Your task to perform on an android device: toggle improve location accuracy Image 0: 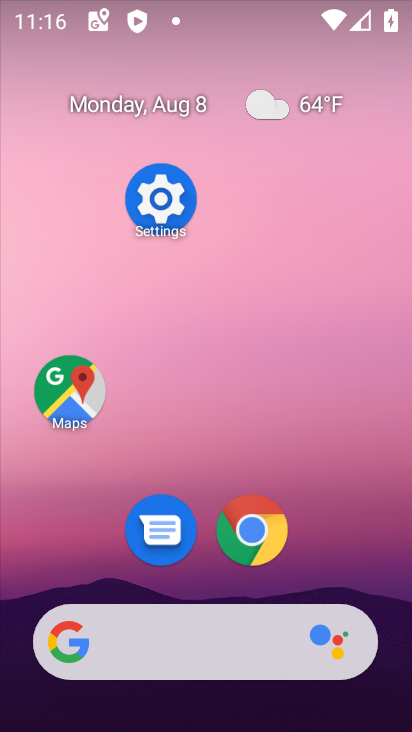
Step 0: drag from (231, 585) to (148, 244)
Your task to perform on an android device: toggle improve location accuracy Image 1: 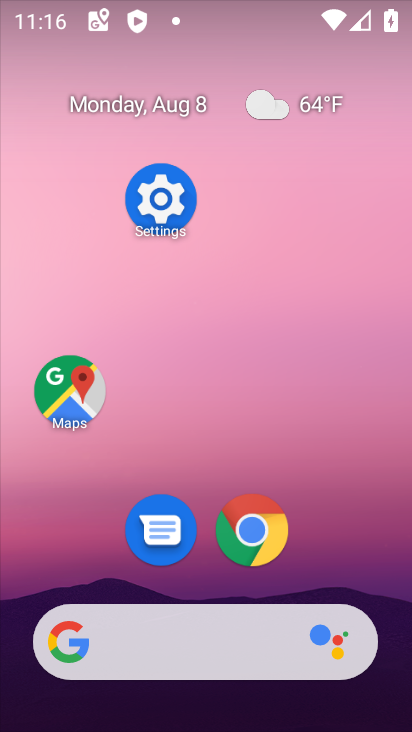
Step 1: drag from (181, 677) to (223, 298)
Your task to perform on an android device: toggle improve location accuracy Image 2: 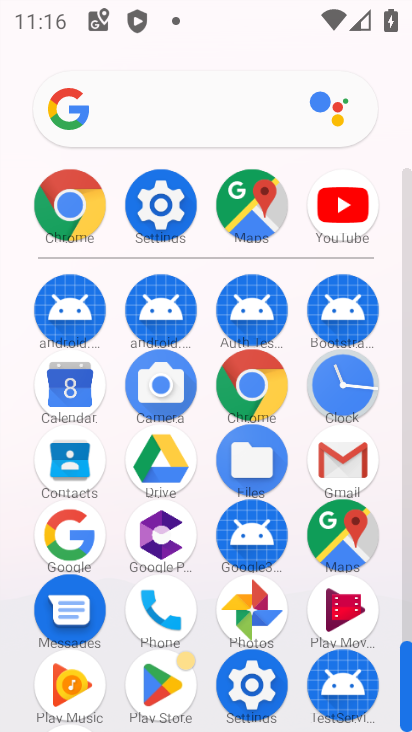
Step 2: drag from (216, 685) to (211, 276)
Your task to perform on an android device: toggle improve location accuracy Image 3: 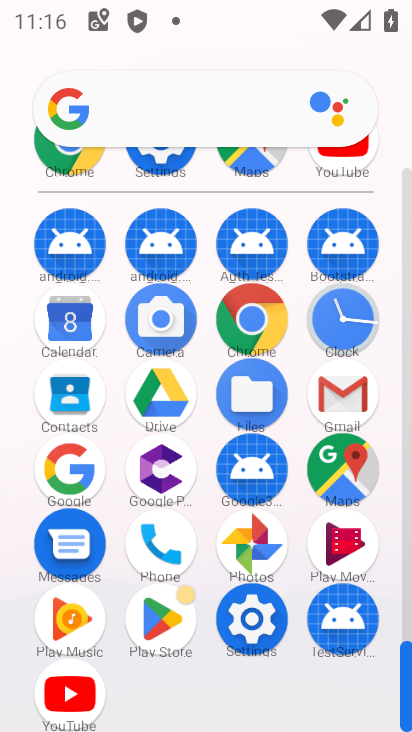
Step 3: click (250, 626)
Your task to perform on an android device: toggle improve location accuracy Image 4: 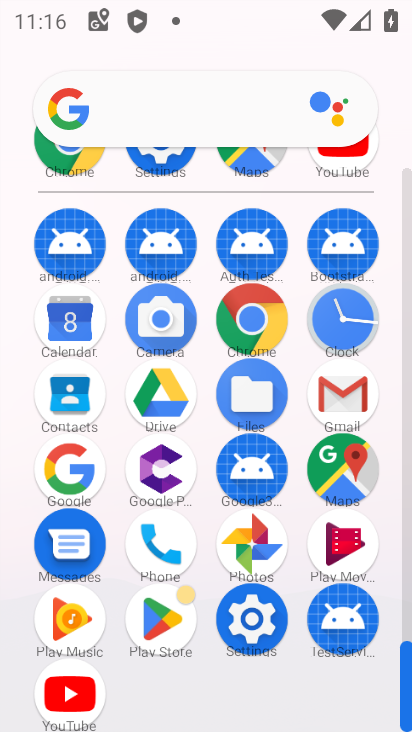
Step 4: click (250, 626)
Your task to perform on an android device: toggle improve location accuracy Image 5: 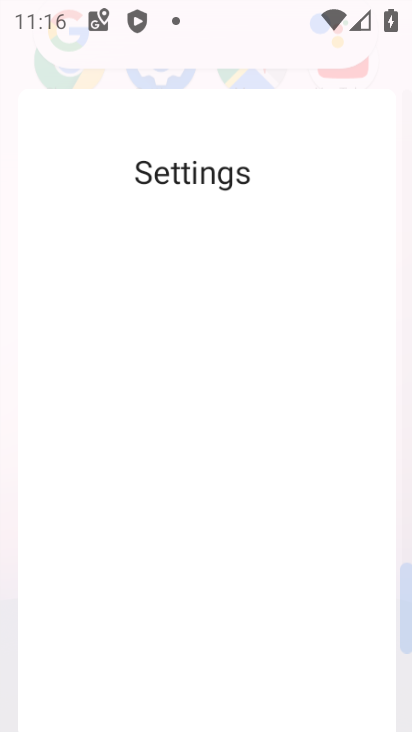
Step 5: click (253, 617)
Your task to perform on an android device: toggle improve location accuracy Image 6: 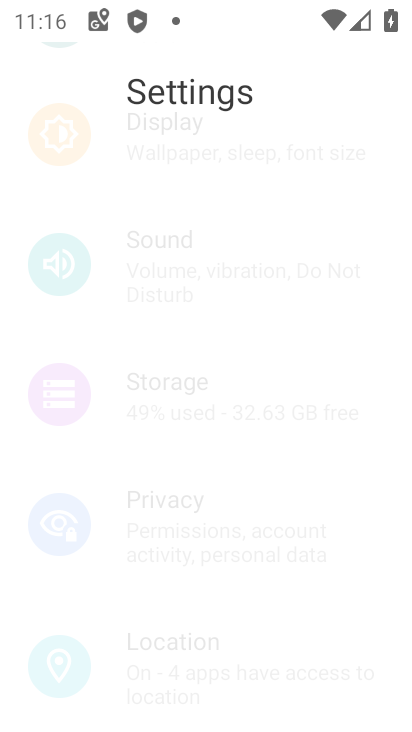
Step 6: click (254, 615)
Your task to perform on an android device: toggle improve location accuracy Image 7: 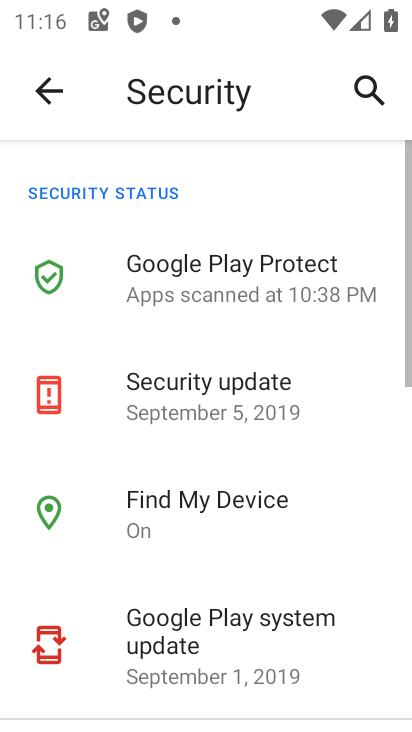
Step 7: click (37, 93)
Your task to perform on an android device: toggle improve location accuracy Image 8: 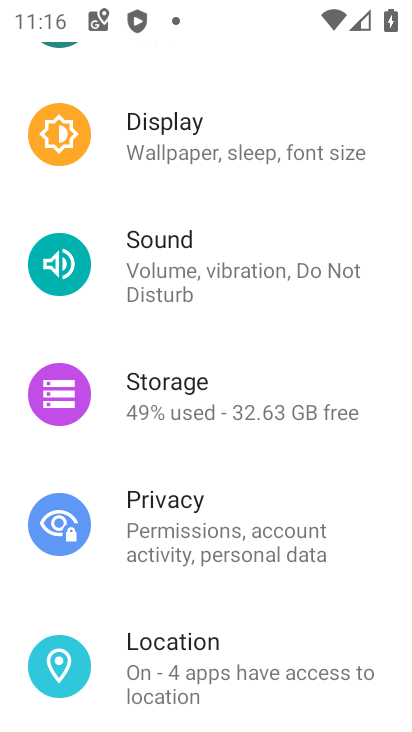
Step 8: click (177, 673)
Your task to perform on an android device: toggle improve location accuracy Image 9: 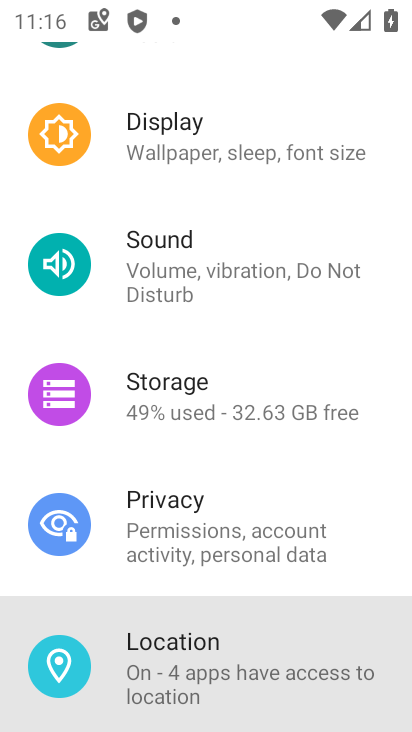
Step 9: click (177, 673)
Your task to perform on an android device: toggle improve location accuracy Image 10: 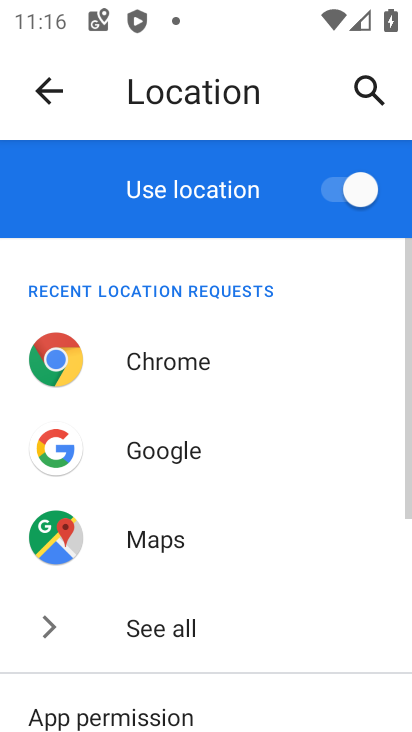
Step 10: drag from (215, 665) to (212, 310)
Your task to perform on an android device: toggle improve location accuracy Image 11: 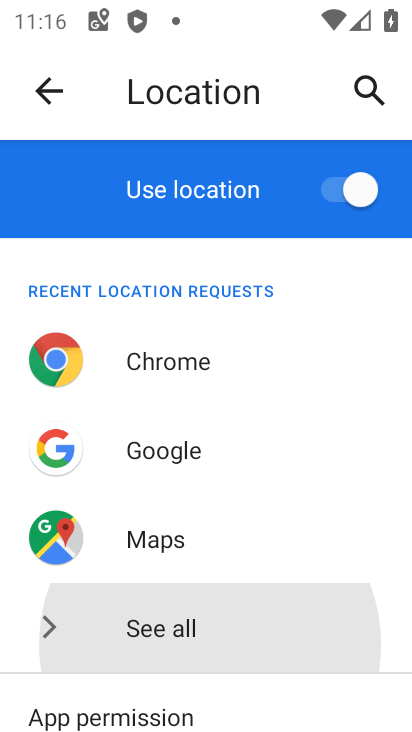
Step 11: drag from (248, 571) to (228, 257)
Your task to perform on an android device: toggle improve location accuracy Image 12: 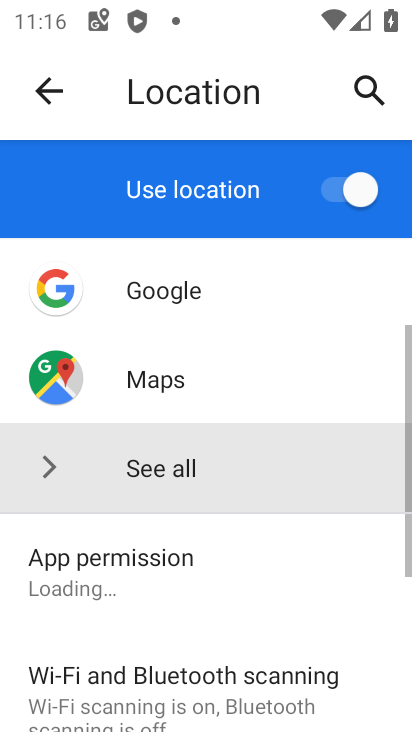
Step 12: drag from (226, 555) to (247, 278)
Your task to perform on an android device: toggle improve location accuracy Image 13: 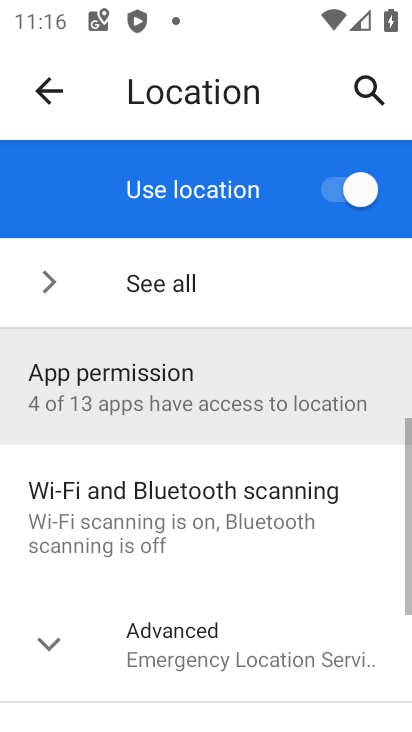
Step 13: drag from (260, 596) to (257, 346)
Your task to perform on an android device: toggle improve location accuracy Image 14: 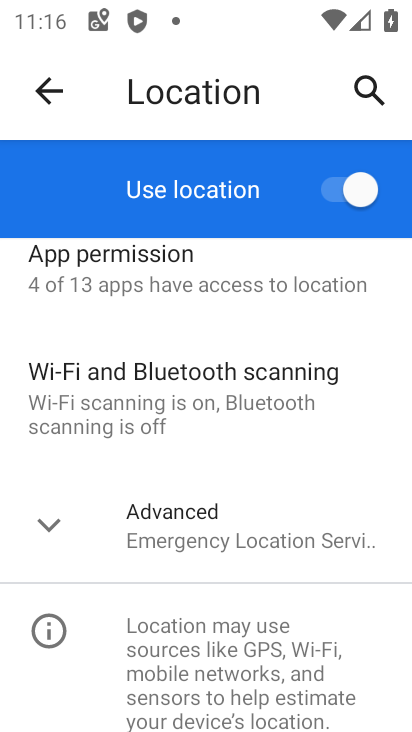
Step 14: click (191, 547)
Your task to perform on an android device: toggle improve location accuracy Image 15: 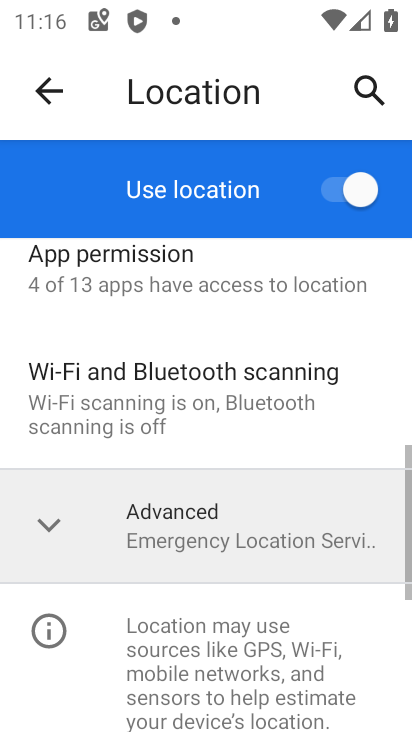
Step 15: click (191, 549)
Your task to perform on an android device: toggle improve location accuracy Image 16: 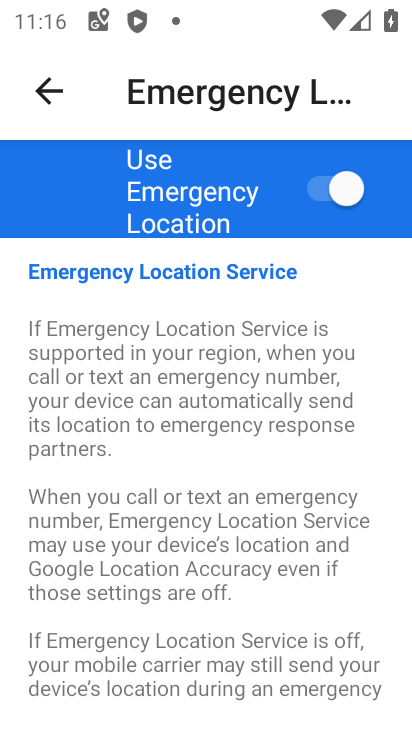
Step 16: click (45, 88)
Your task to perform on an android device: toggle improve location accuracy Image 17: 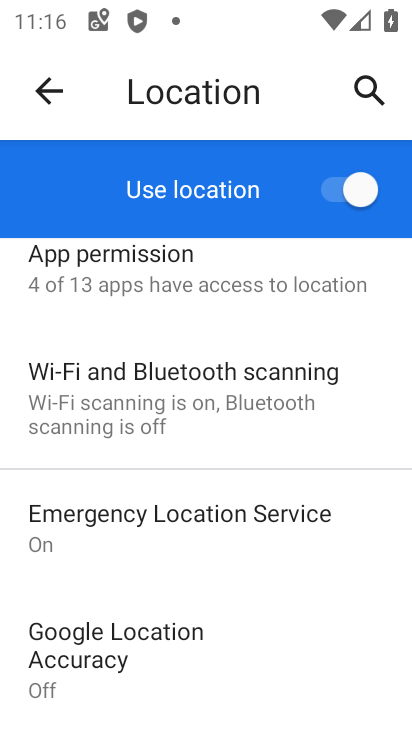
Step 17: drag from (139, 669) to (111, 389)
Your task to perform on an android device: toggle improve location accuracy Image 18: 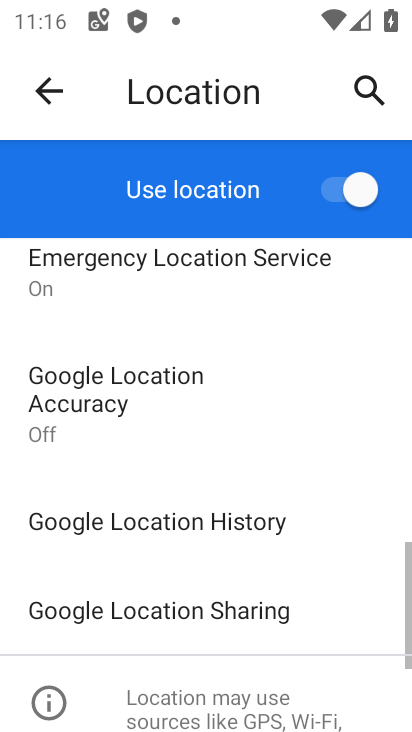
Step 18: click (117, 363)
Your task to perform on an android device: toggle improve location accuracy Image 19: 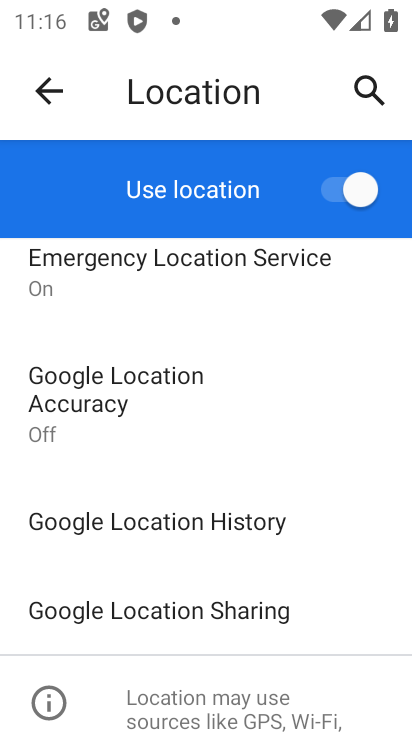
Step 19: click (66, 394)
Your task to perform on an android device: toggle improve location accuracy Image 20: 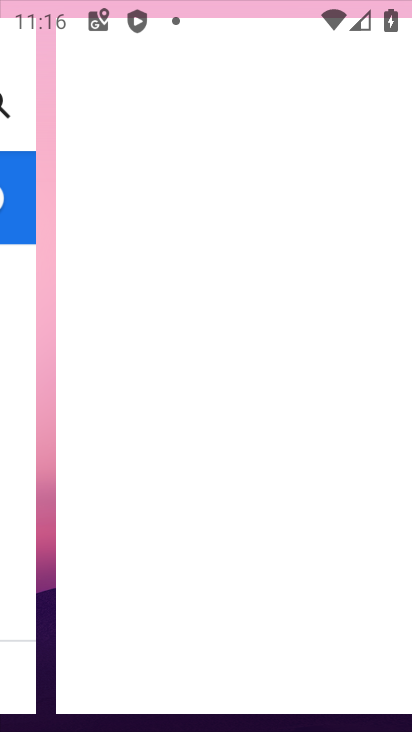
Step 20: click (75, 409)
Your task to perform on an android device: toggle improve location accuracy Image 21: 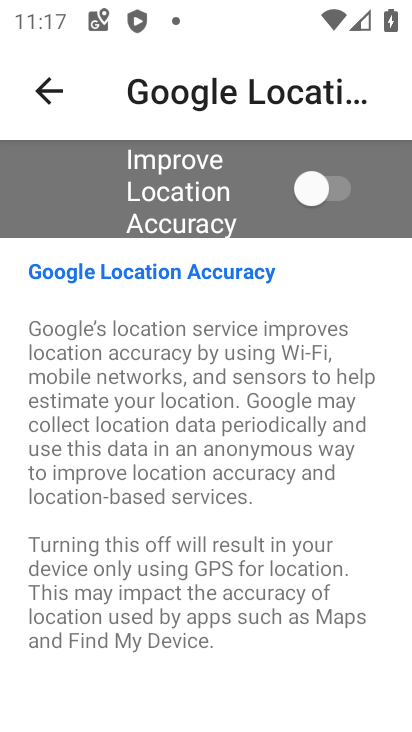
Step 21: click (313, 188)
Your task to perform on an android device: toggle improve location accuracy Image 22: 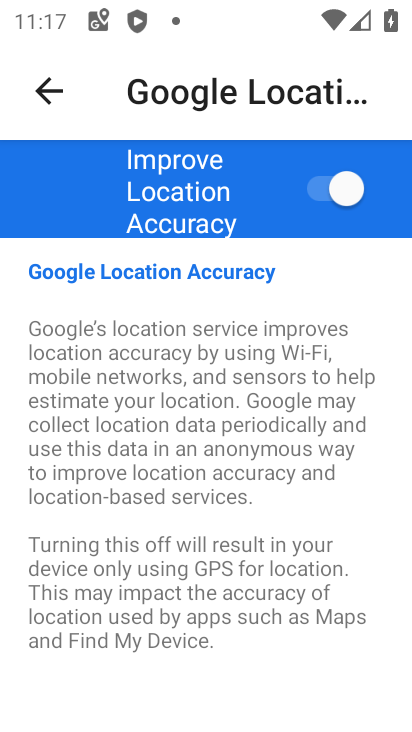
Step 22: task complete